Your task to perform on an android device: check google app version Image 0: 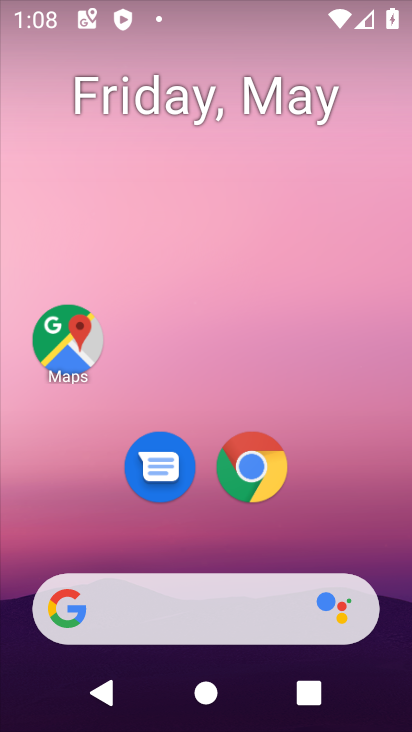
Step 0: drag from (330, 523) to (320, 139)
Your task to perform on an android device: check google app version Image 1: 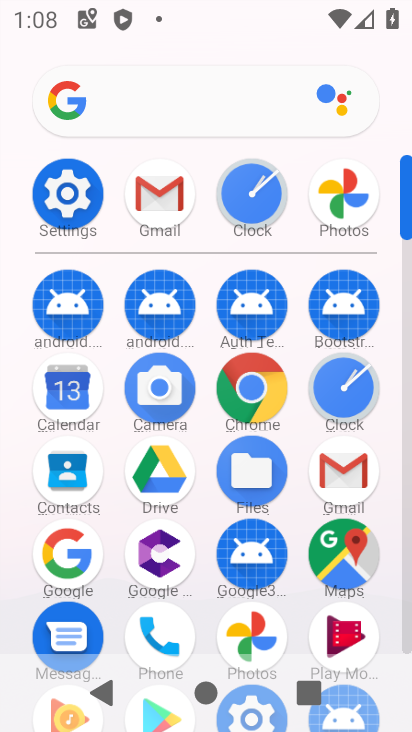
Step 1: click (61, 552)
Your task to perform on an android device: check google app version Image 2: 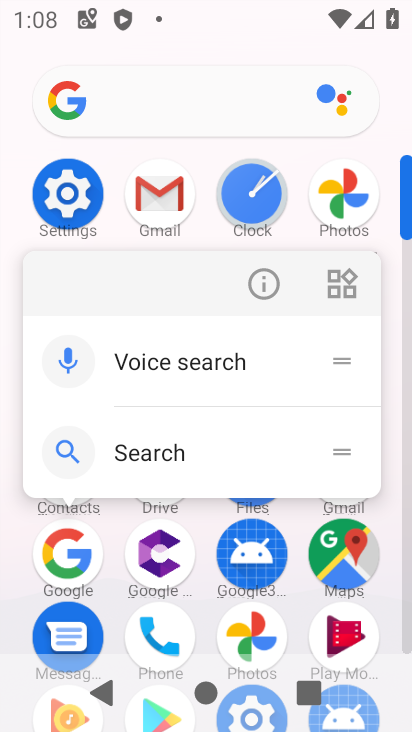
Step 2: click (264, 284)
Your task to perform on an android device: check google app version Image 3: 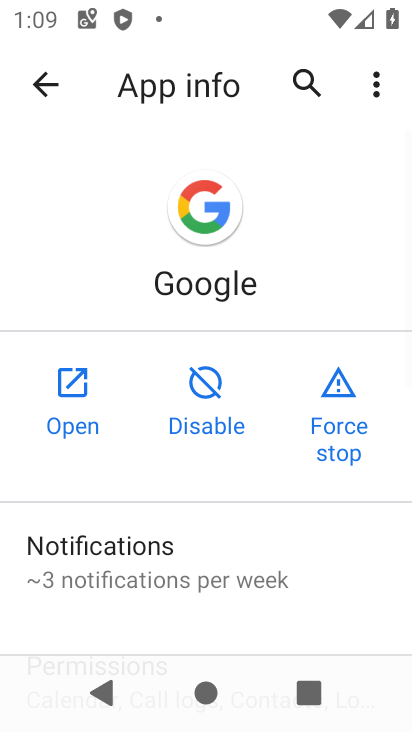
Step 3: drag from (218, 539) to (301, 298)
Your task to perform on an android device: check google app version Image 4: 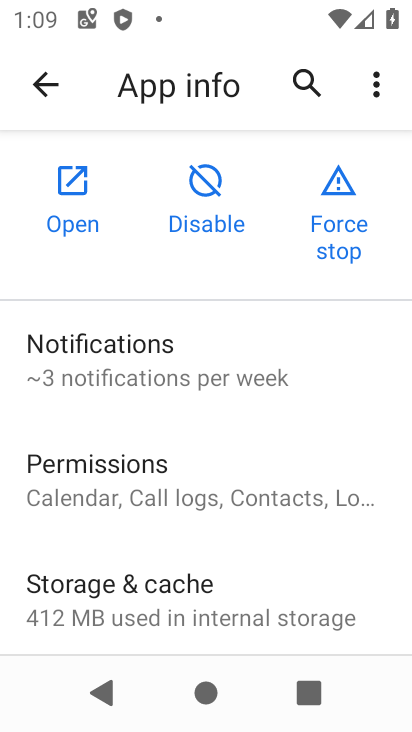
Step 4: drag from (234, 542) to (277, 361)
Your task to perform on an android device: check google app version Image 5: 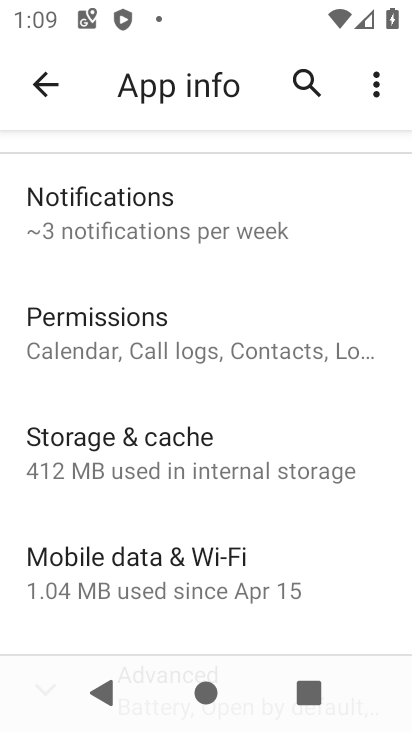
Step 5: drag from (252, 424) to (324, 267)
Your task to perform on an android device: check google app version Image 6: 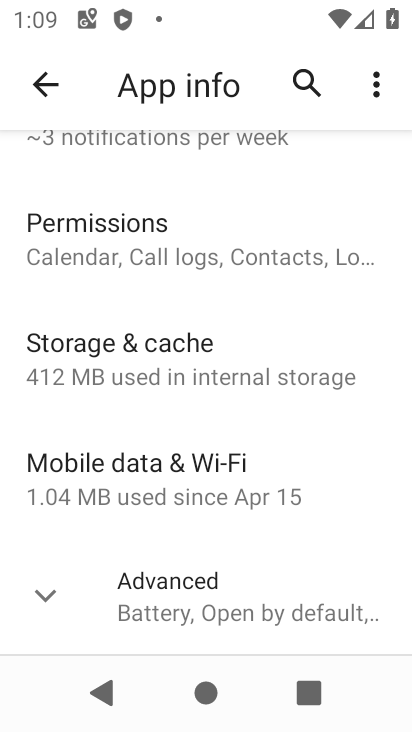
Step 6: click (186, 586)
Your task to perform on an android device: check google app version Image 7: 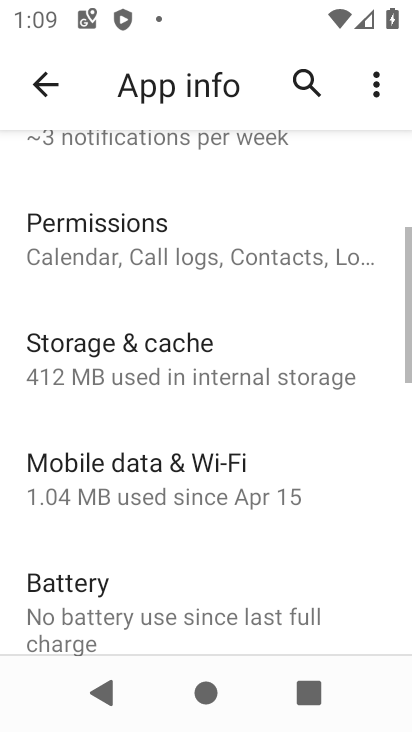
Step 7: task complete